Your task to perform on an android device: Search for hotels in Seattle Image 0: 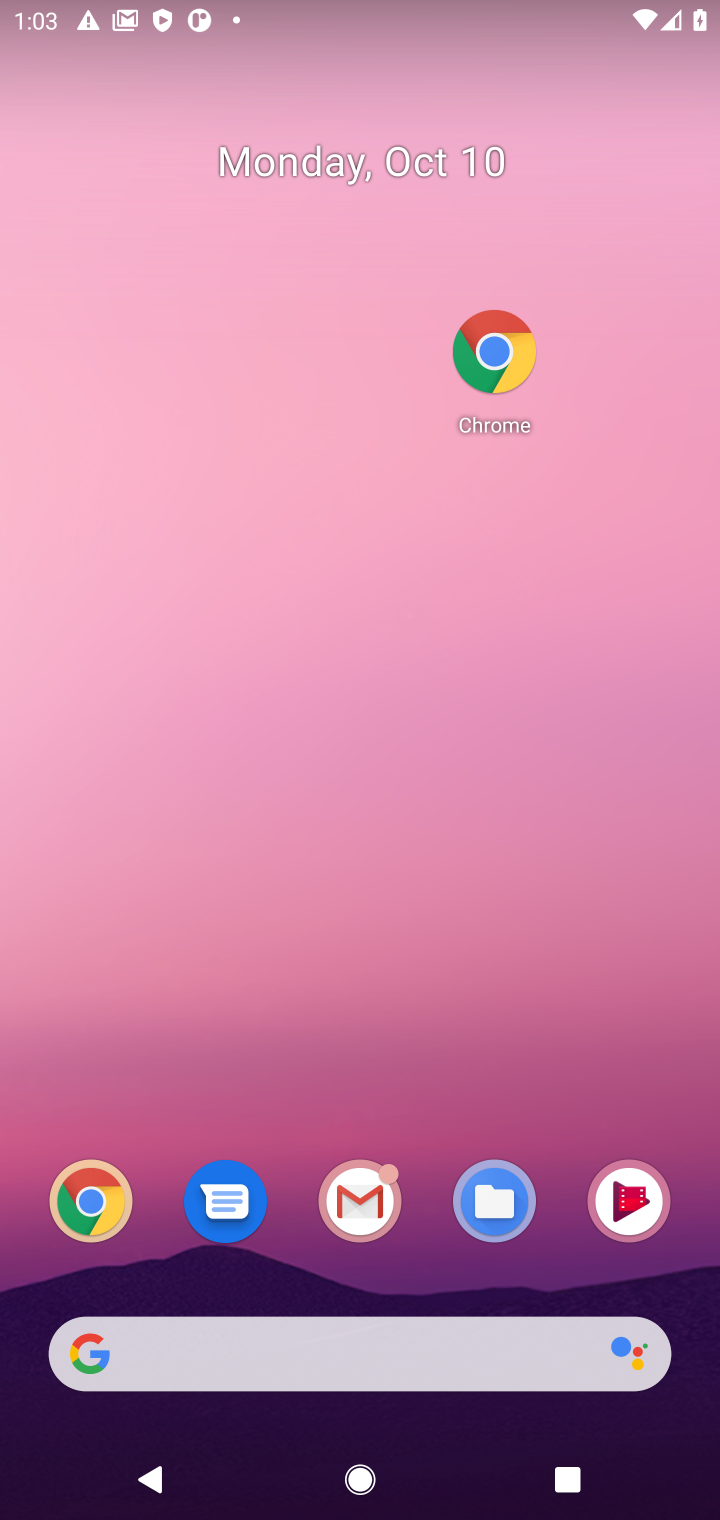
Step 0: click (103, 1219)
Your task to perform on an android device: Search for hotels in Seattle Image 1: 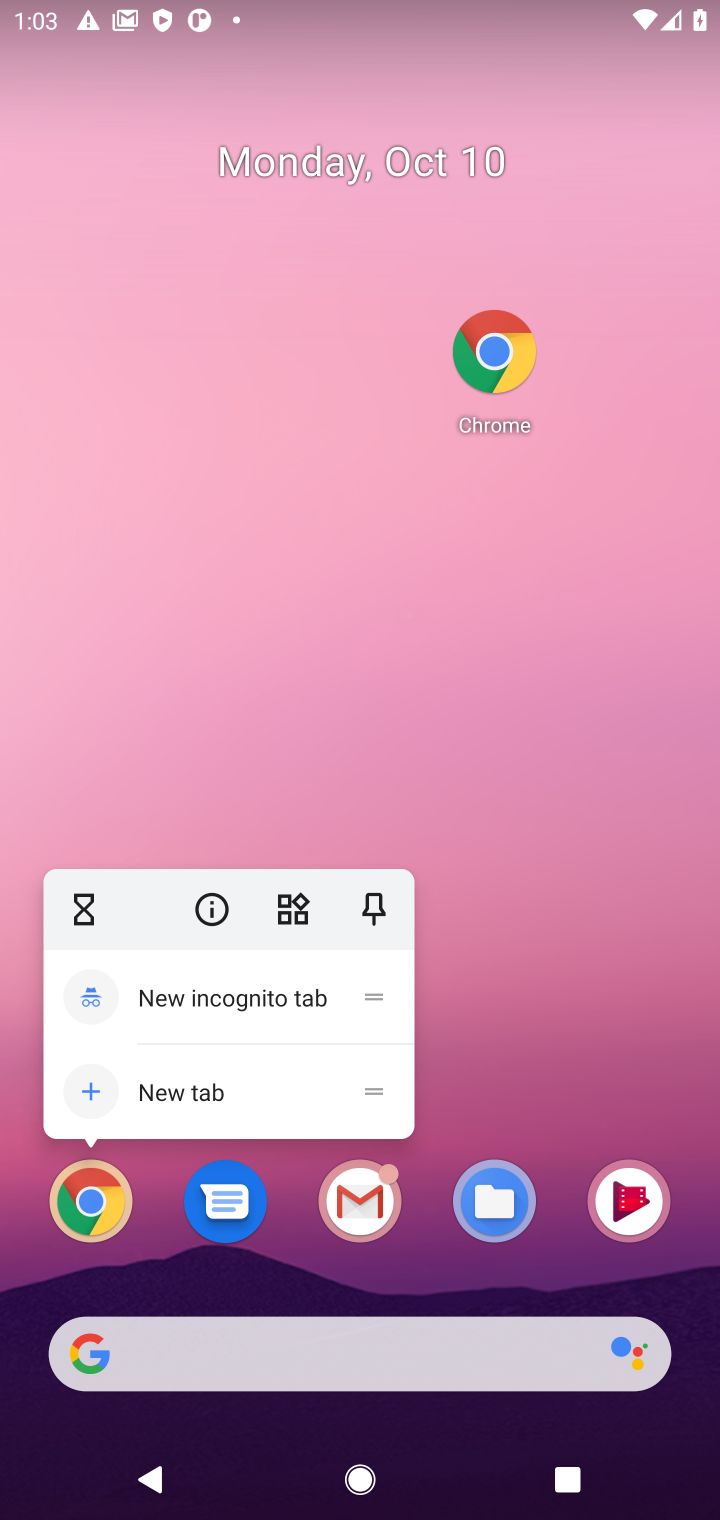
Step 1: click (92, 1191)
Your task to perform on an android device: Search for hotels in Seattle Image 2: 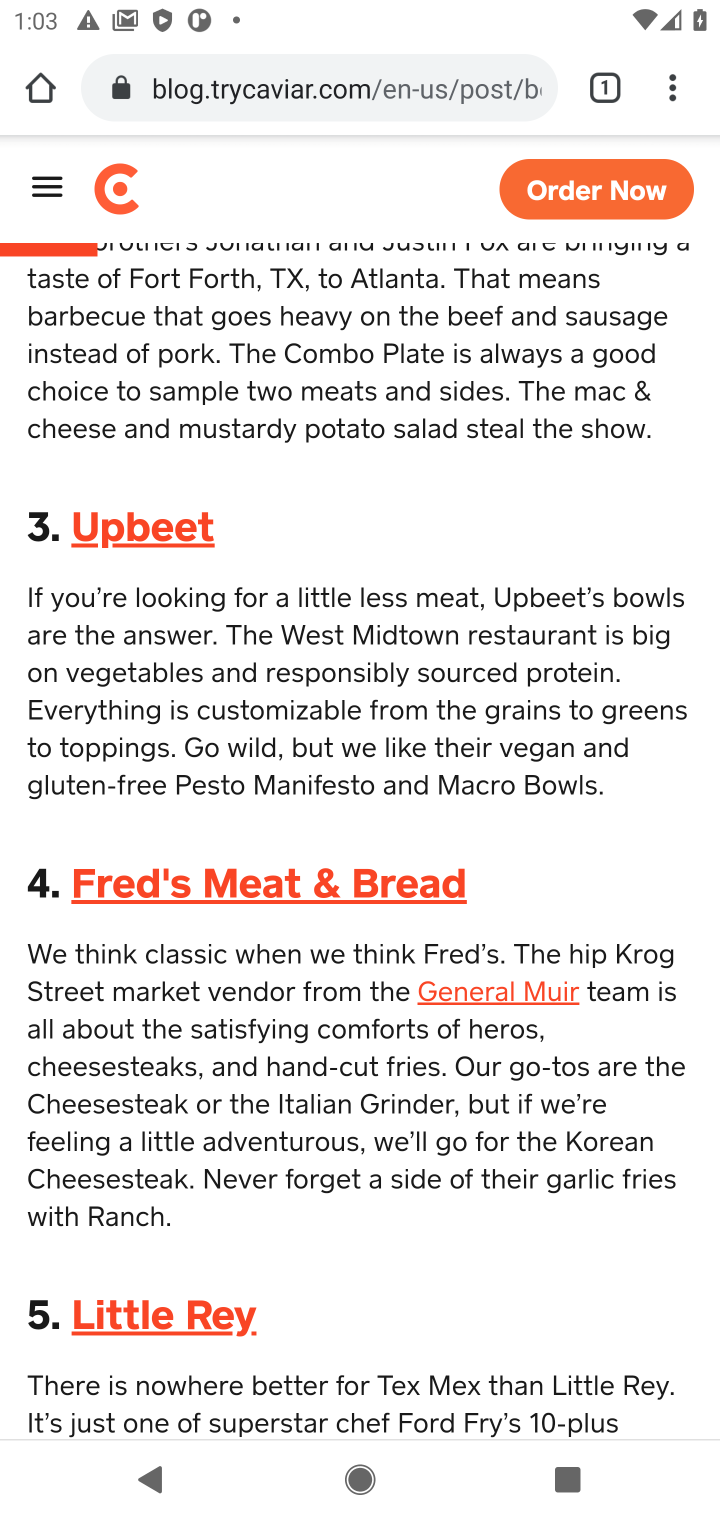
Step 2: click (374, 99)
Your task to perform on an android device: Search for hotels in Seattle Image 3: 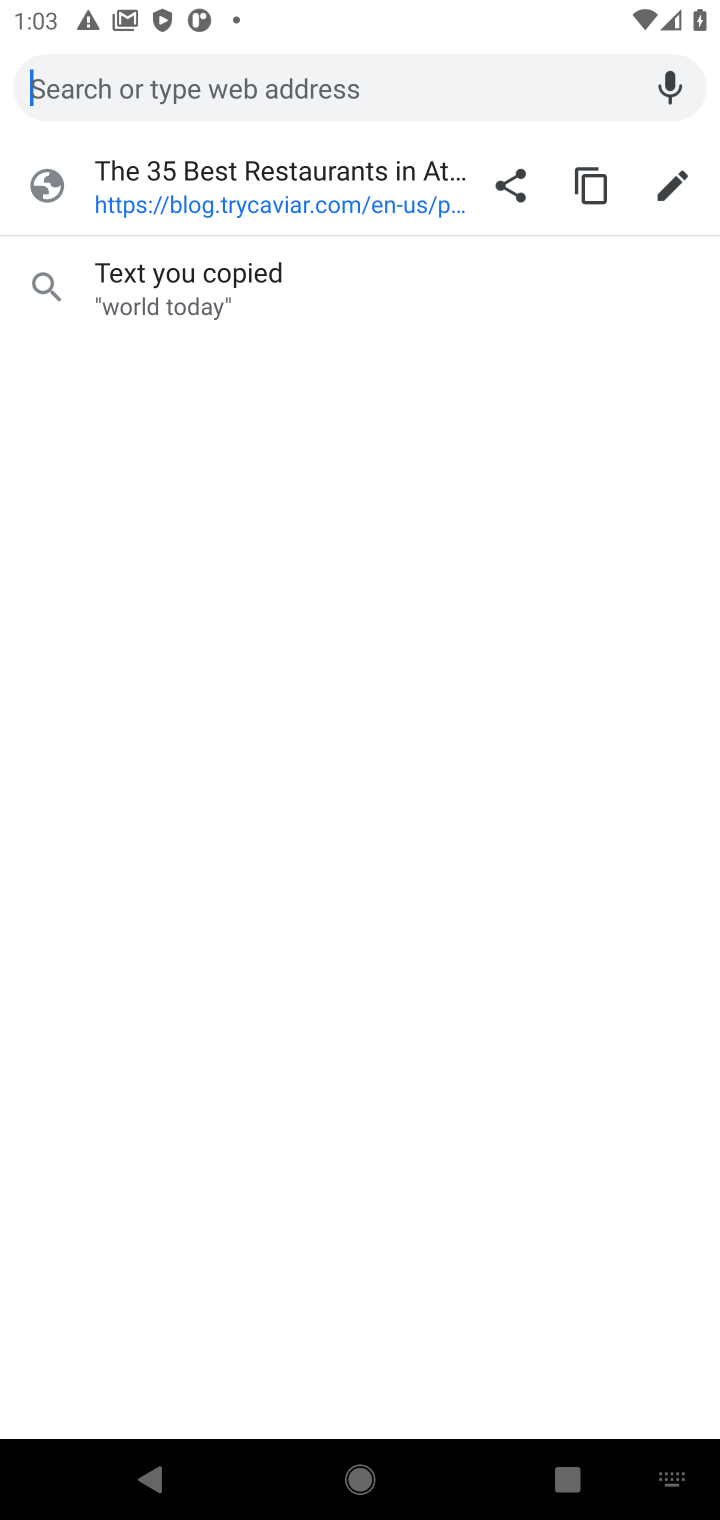
Step 3: type "hotels in Seattle"
Your task to perform on an android device: Search for hotels in Seattle Image 4: 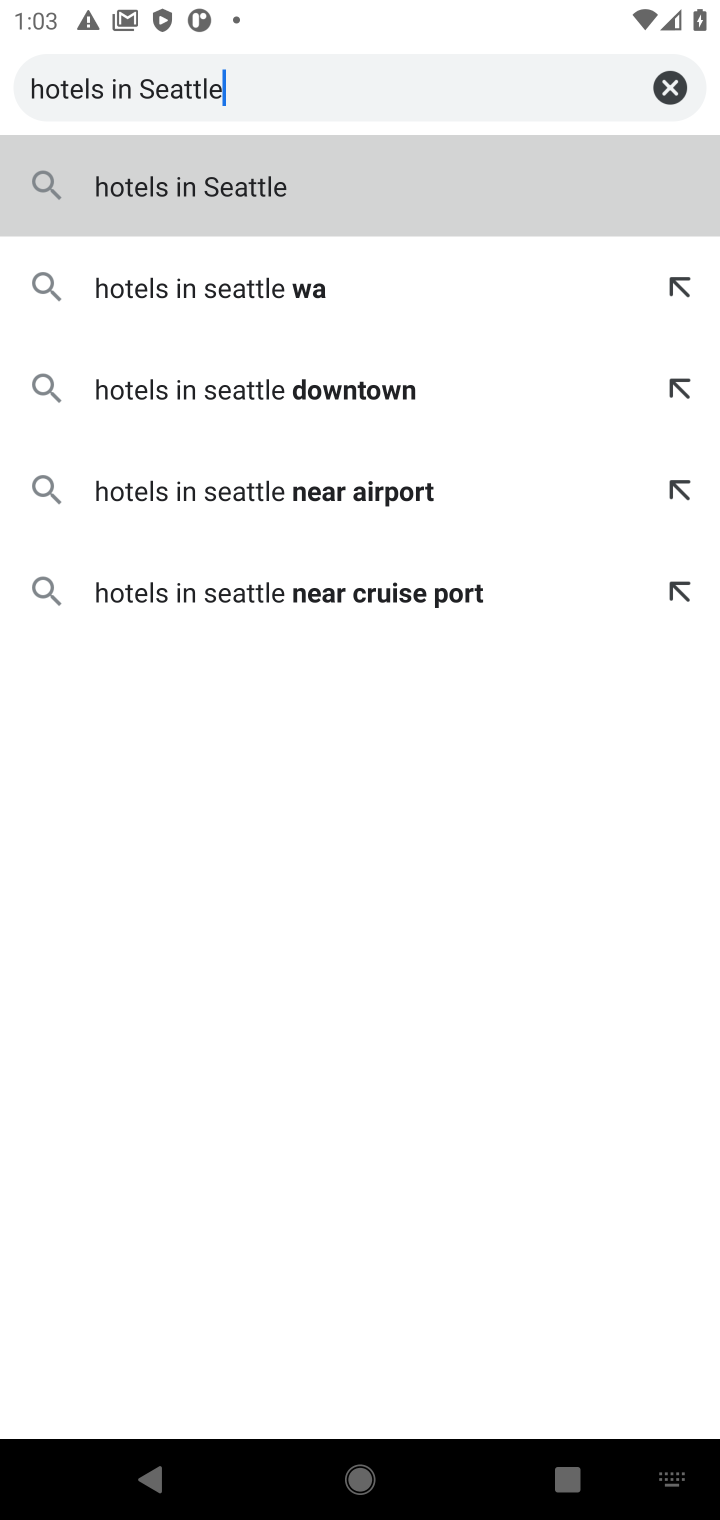
Step 4: click (239, 188)
Your task to perform on an android device: Search for hotels in Seattle Image 5: 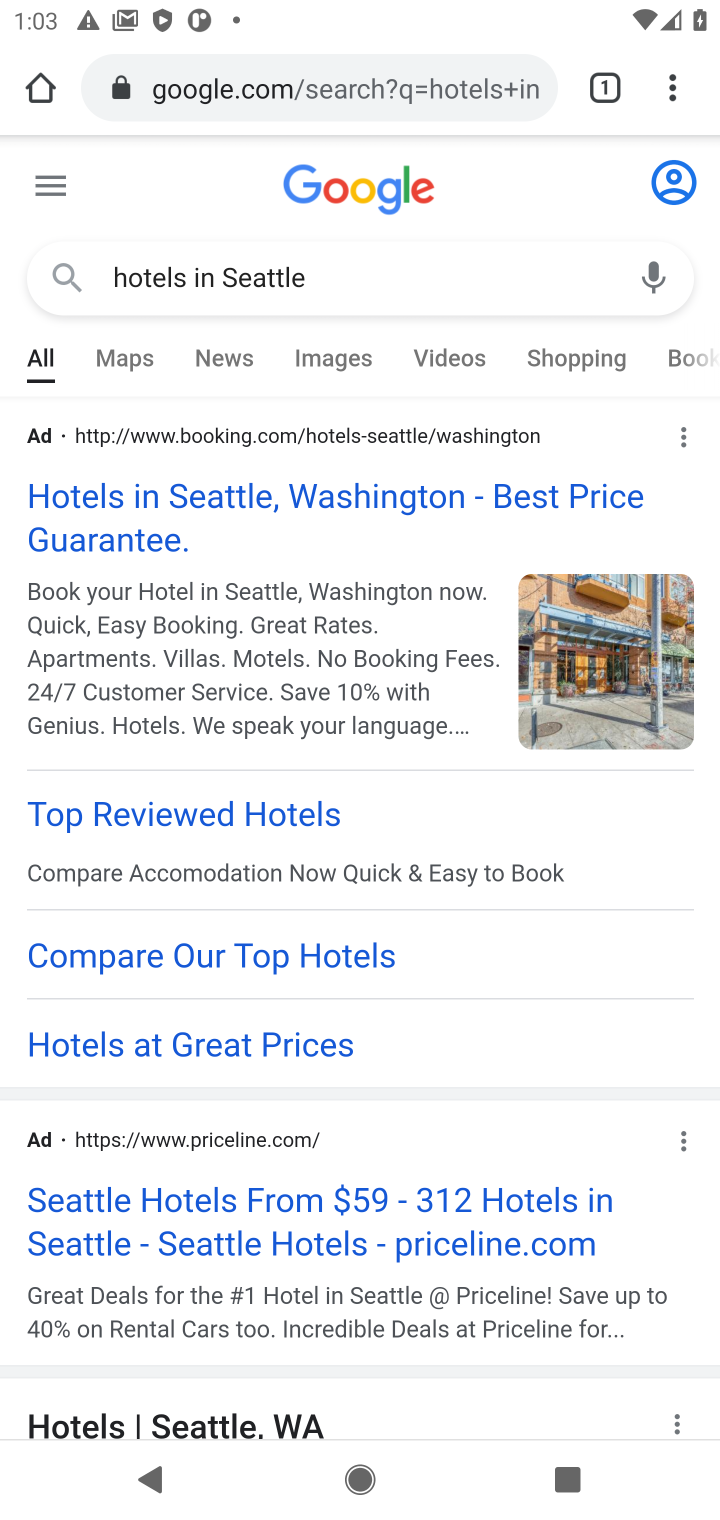
Step 5: click (332, 497)
Your task to perform on an android device: Search for hotels in Seattle Image 6: 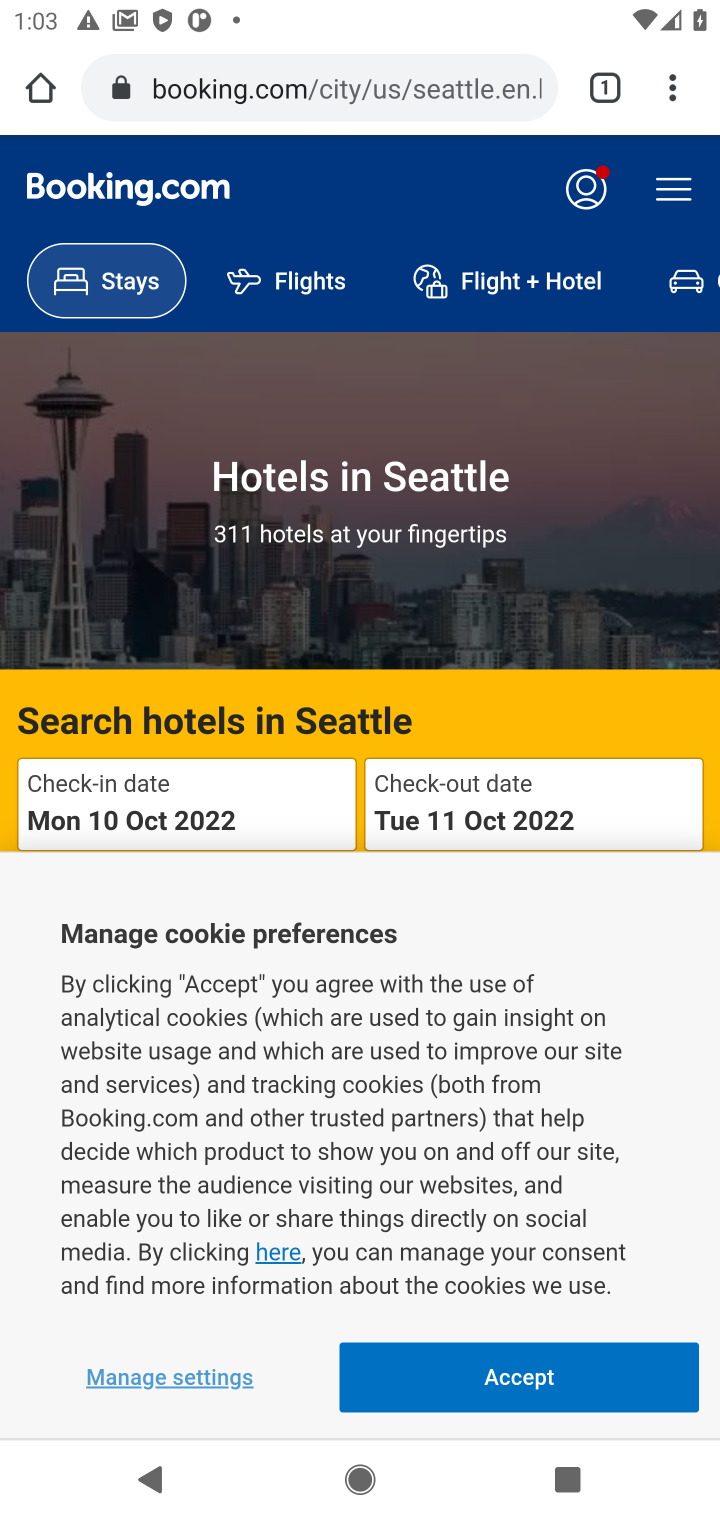
Step 6: task complete